Your task to perform on an android device: Open wifi settings Image 0: 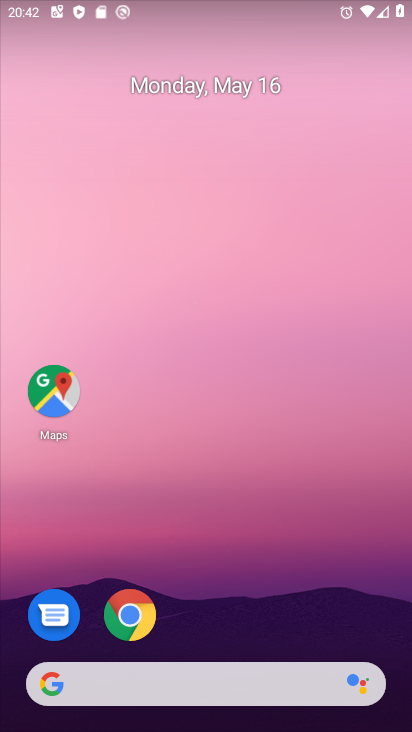
Step 0: task complete